Your task to perform on an android device: toggle show notifications on the lock screen Image 0: 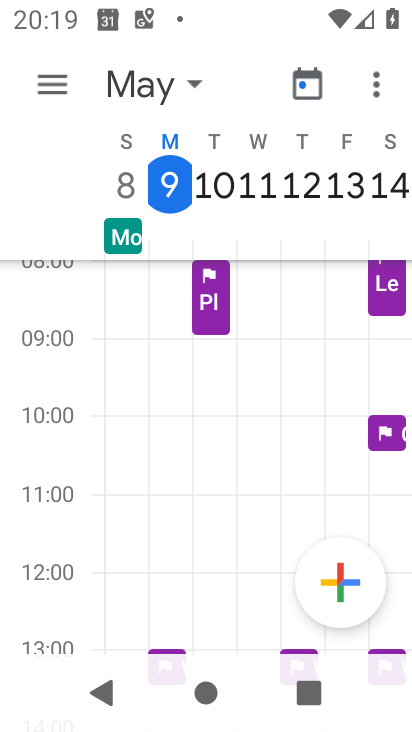
Step 0: drag from (344, 544) to (406, 381)
Your task to perform on an android device: toggle show notifications on the lock screen Image 1: 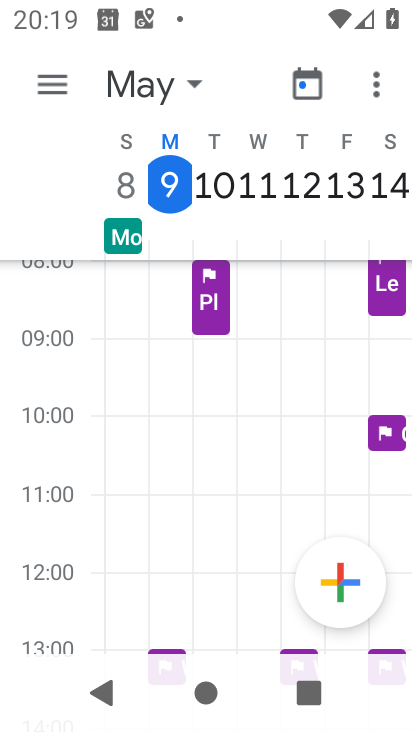
Step 1: press home button
Your task to perform on an android device: toggle show notifications on the lock screen Image 2: 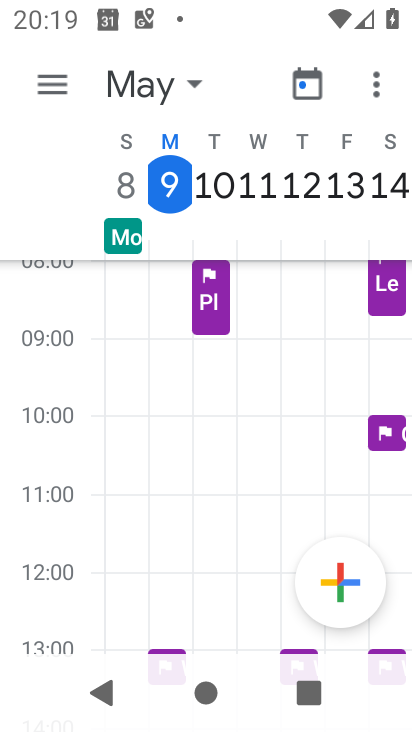
Step 2: drag from (406, 381) to (371, 360)
Your task to perform on an android device: toggle show notifications on the lock screen Image 3: 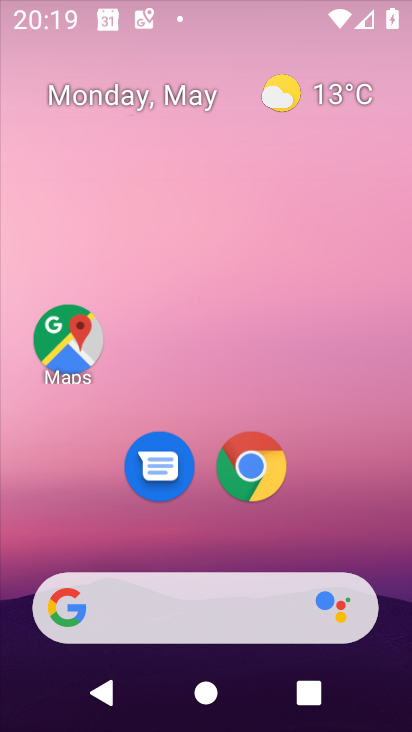
Step 3: drag from (332, 563) to (356, 216)
Your task to perform on an android device: toggle show notifications on the lock screen Image 4: 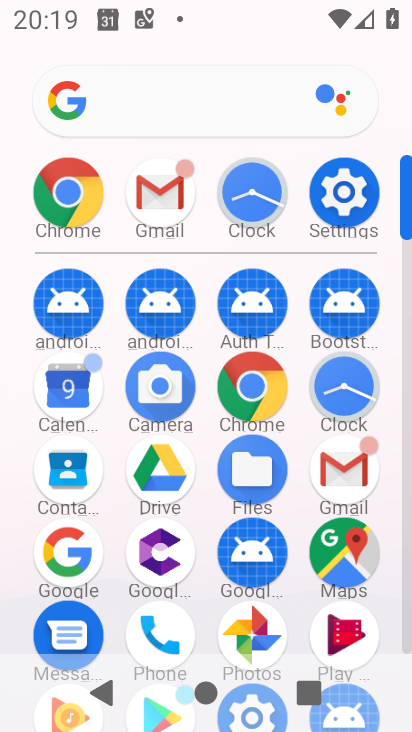
Step 4: click (328, 200)
Your task to perform on an android device: toggle show notifications on the lock screen Image 5: 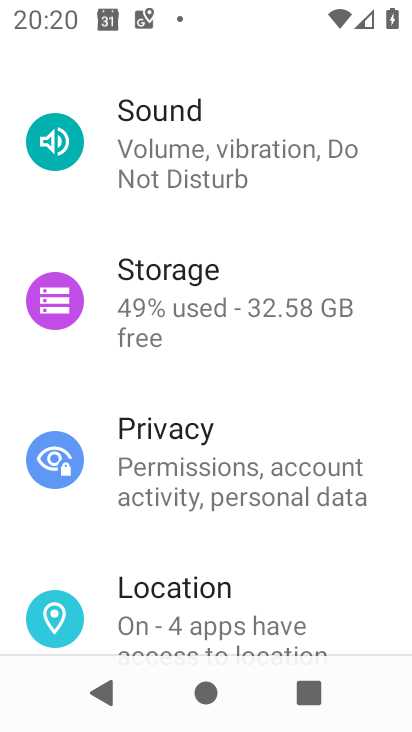
Step 5: drag from (191, 149) to (177, 685)
Your task to perform on an android device: toggle show notifications on the lock screen Image 6: 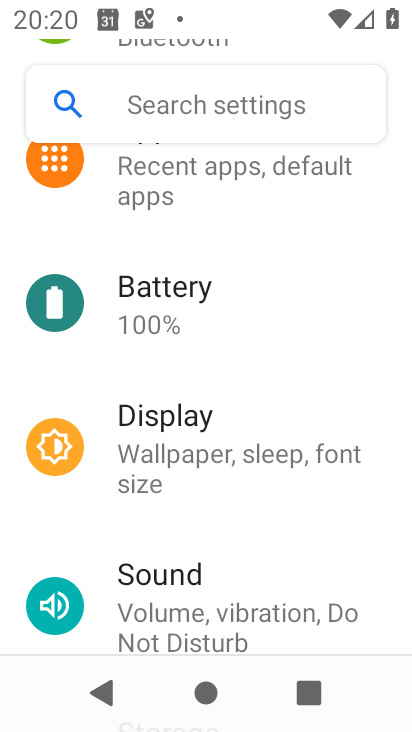
Step 6: drag from (261, 208) to (248, 665)
Your task to perform on an android device: toggle show notifications on the lock screen Image 7: 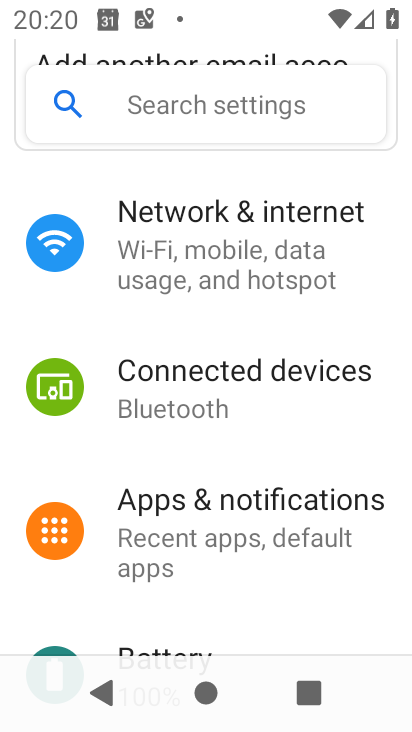
Step 7: click (220, 240)
Your task to perform on an android device: toggle show notifications on the lock screen Image 8: 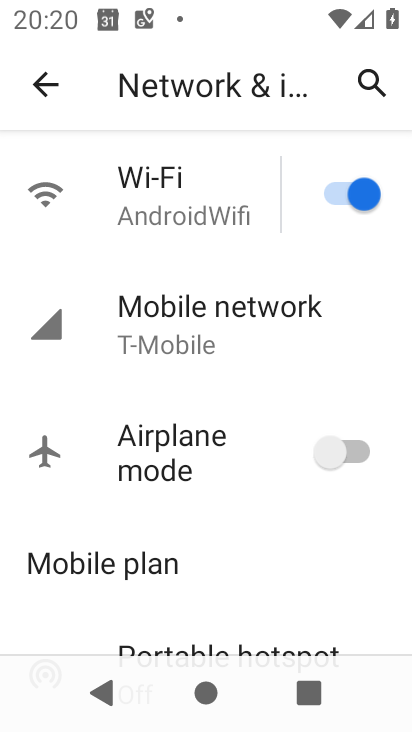
Step 8: drag from (184, 594) to (275, 244)
Your task to perform on an android device: toggle show notifications on the lock screen Image 9: 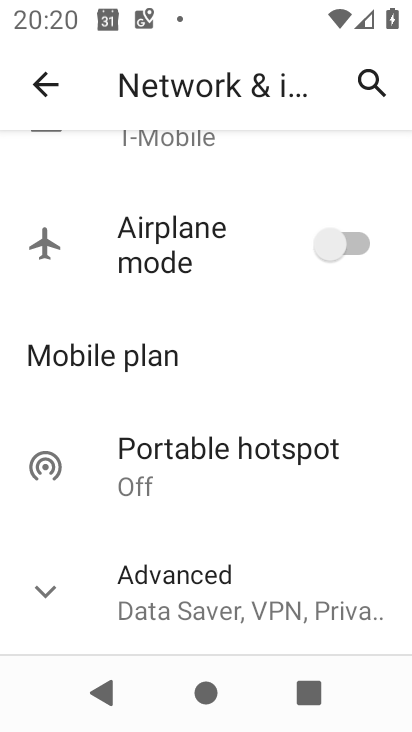
Step 9: click (29, 78)
Your task to perform on an android device: toggle show notifications on the lock screen Image 10: 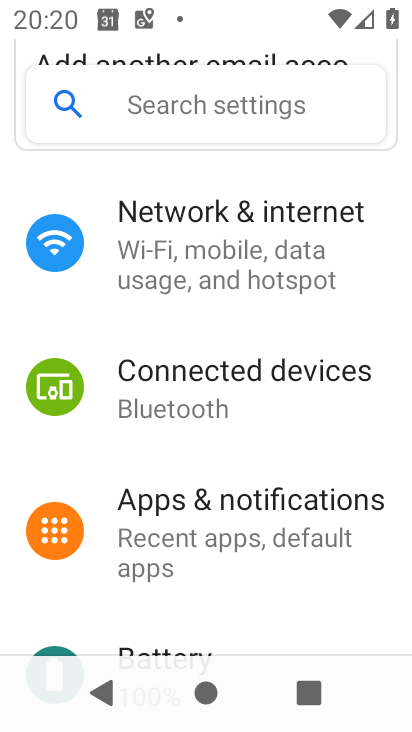
Step 10: click (181, 508)
Your task to perform on an android device: toggle show notifications on the lock screen Image 11: 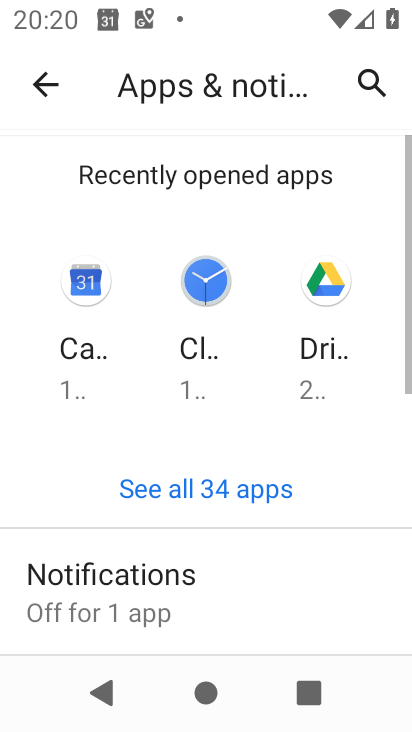
Step 11: drag from (233, 576) to (272, 278)
Your task to perform on an android device: toggle show notifications on the lock screen Image 12: 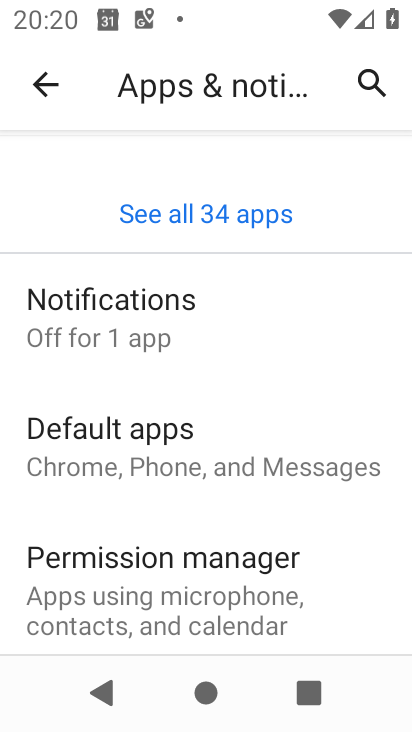
Step 12: click (195, 326)
Your task to perform on an android device: toggle show notifications on the lock screen Image 13: 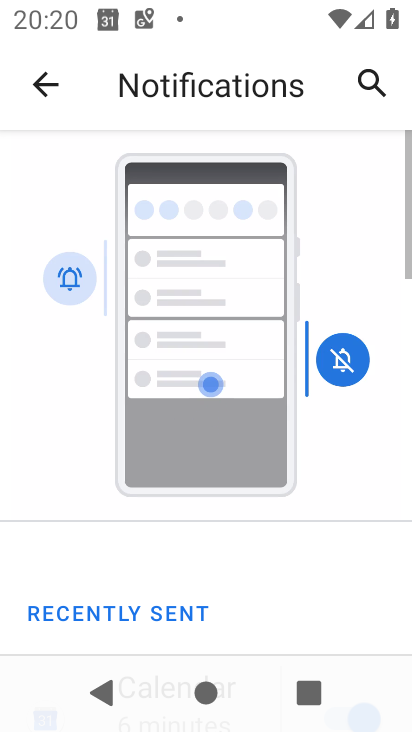
Step 13: drag from (188, 609) to (298, 139)
Your task to perform on an android device: toggle show notifications on the lock screen Image 14: 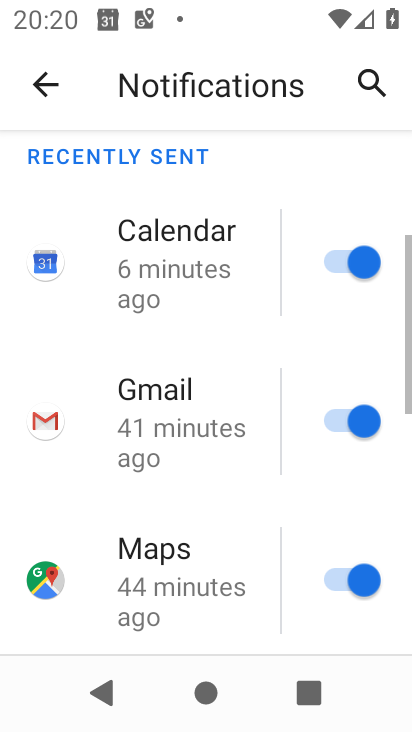
Step 14: drag from (167, 622) to (295, 130)
Your task to perform on an android device: toggle show notifications on the lock screen Image 15: 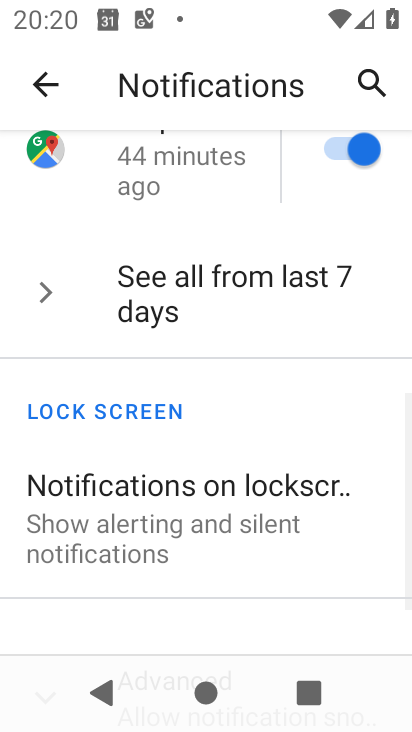
Step 15: click (175, 522)
Your task to perform on an android device: toggle show notifications on the lock screen Image 16: 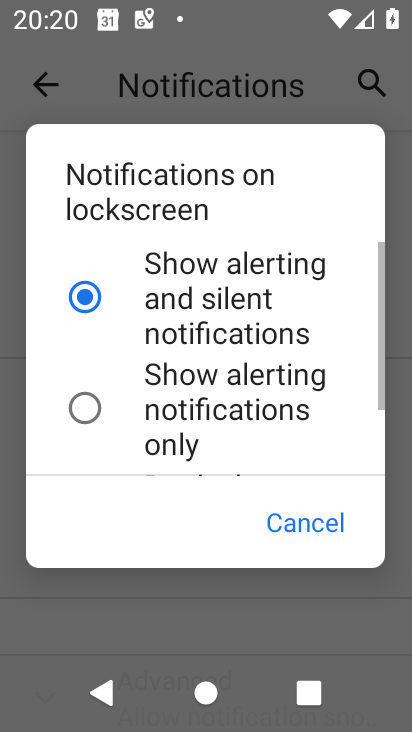
Step 16: click (172, 416)
Your task to perform on an android device: toggle show notifications on the lock screen Image 17: 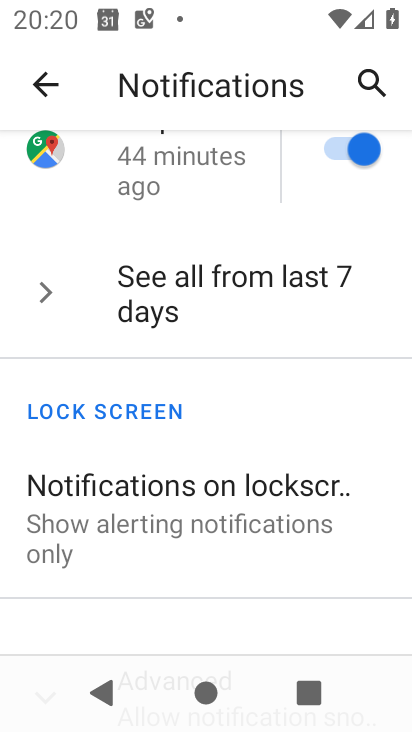
Step 17: task complete